Your task to perform on an android device: turn off location Image 0: 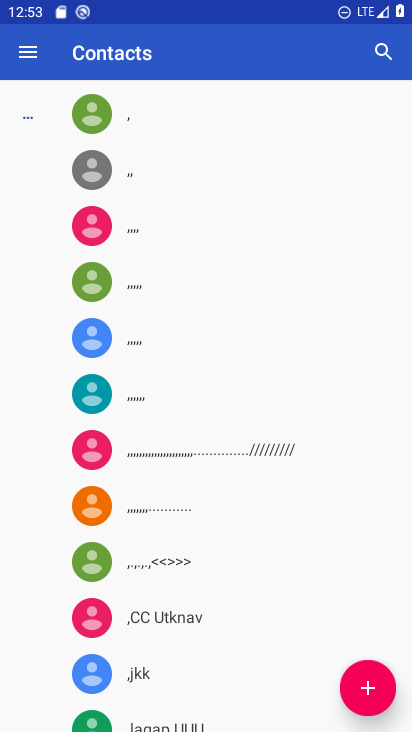
Step 0: press home button
Your task to perform on an android device: turn off location Image 1: 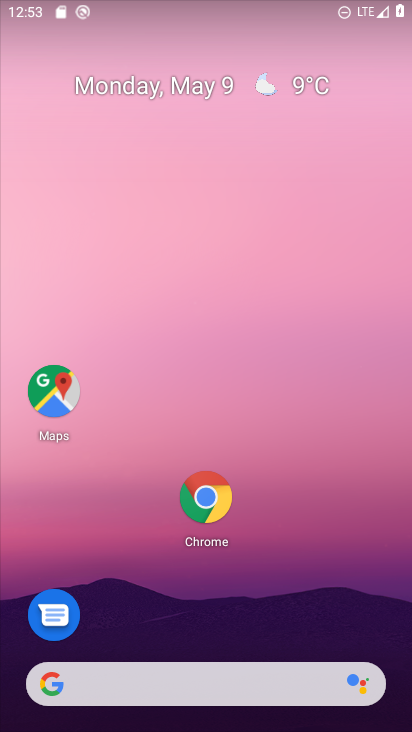
Step 1: drag from (297, 621) to (312, 123)
Your task to perform on an android device: turn off location Image 2: 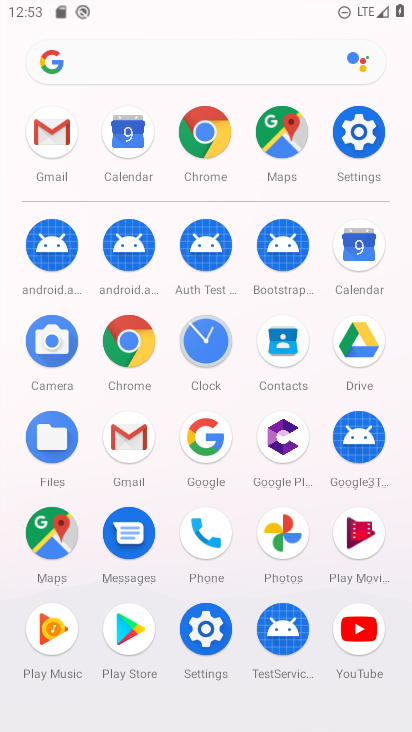
Step 2: click (369, 145)
Your task to perform on an android device: turn off location Image 3: 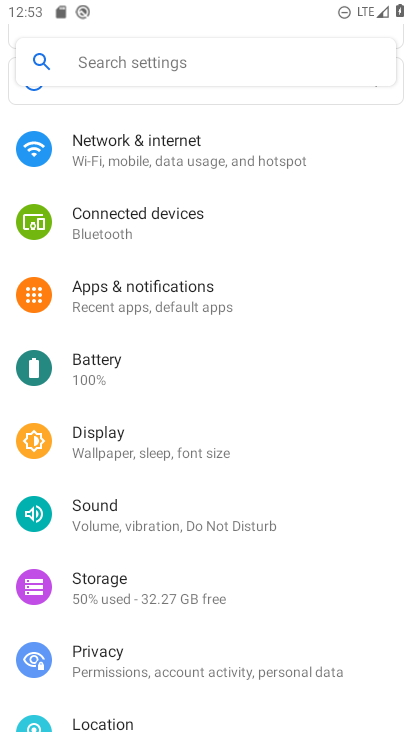
Step 3: click (199, 154)
Your task to perform on an android device: turn off location Image 4: 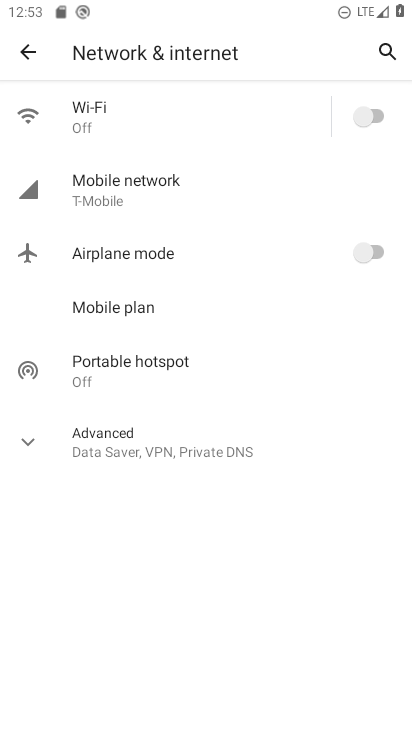
Step 4: task complete